Your task to perform on an android device: visit the assistant section in the google photos Image 0: 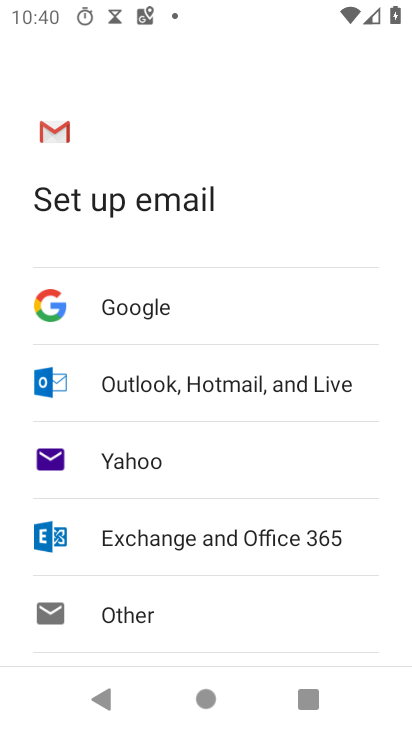
Step 0: press home button
Your task to perform on an android device: visit the assistant section in the google photos Image 1: 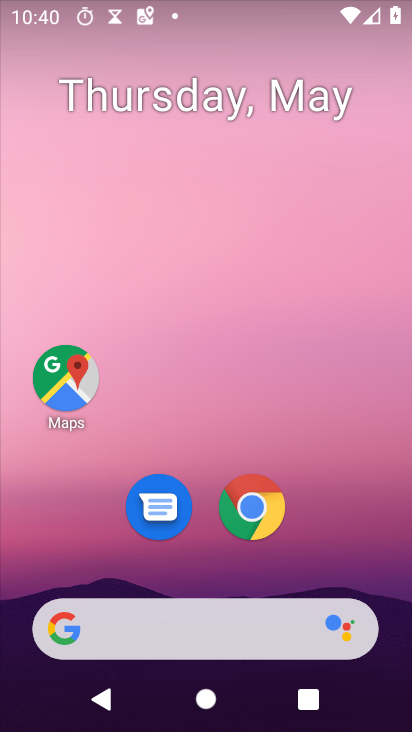
Step 1: drag from (150, 723) to (284, 23)
Your task to perform on an android device: visit the assistant section in the google photos Image 2: 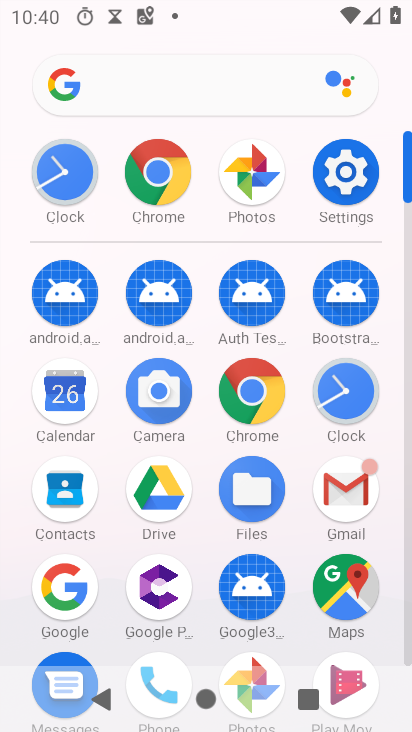
Step 2: click (246, 183)
Your task to perform on an android device: visit the assistant section in the google photos Image 3: 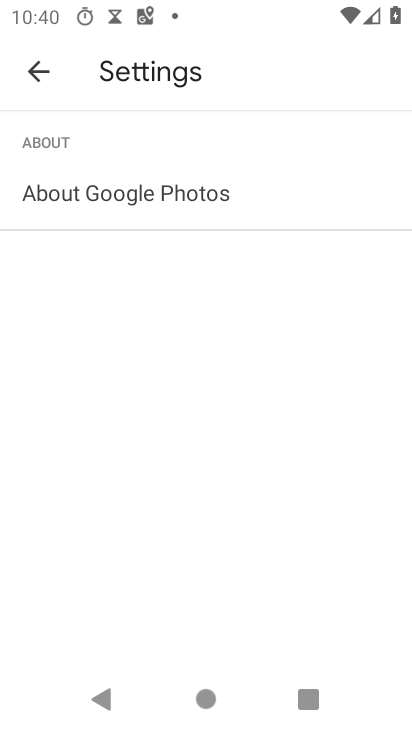
Step 3: click (50, 75)
Your task to perform on an android device: visit the assistant section in the google photos Image 4: 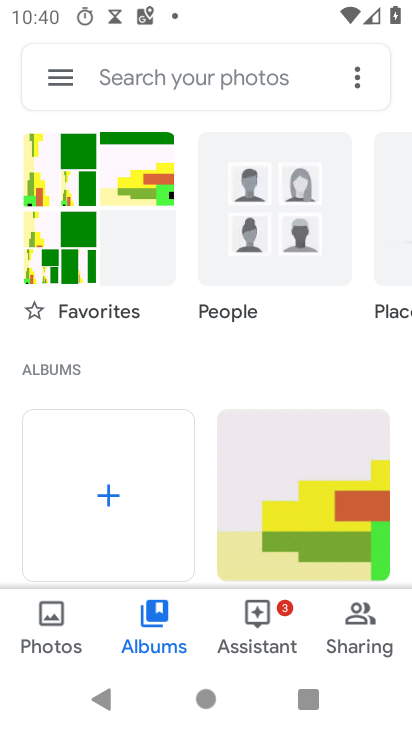
Step 4: click (261, 626)
Your task to perform on an android device: visit the assistant section in the google photos Image 5: 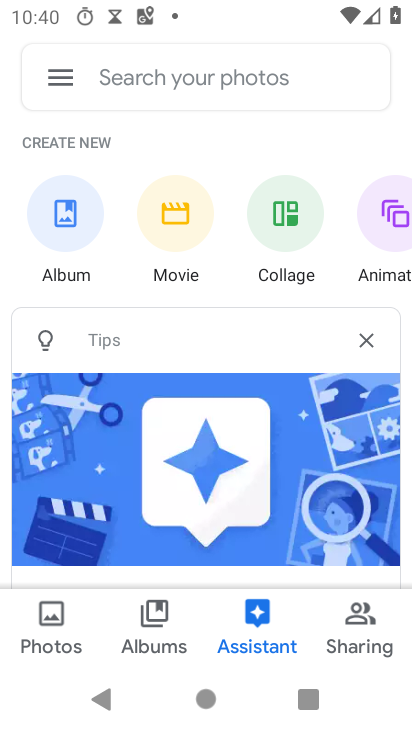
Step 5: task complete